Your task to perform on an android device: turn off improve location accuracy Image 0: 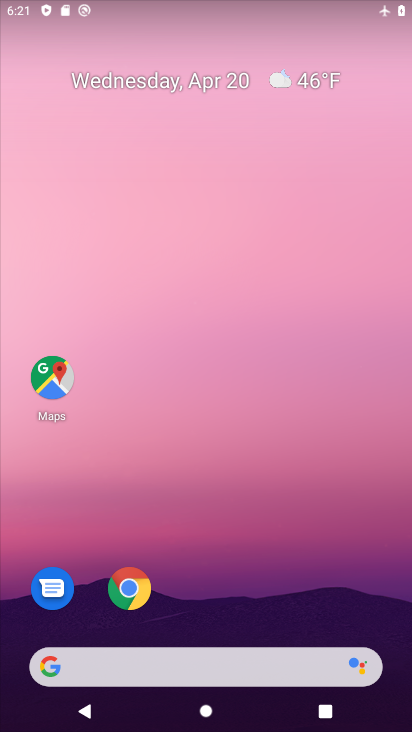
Step 0: drag from (278, 598) to (166, 0)
Your task to perform on an android device: turn off improve location accuracy Image 1: 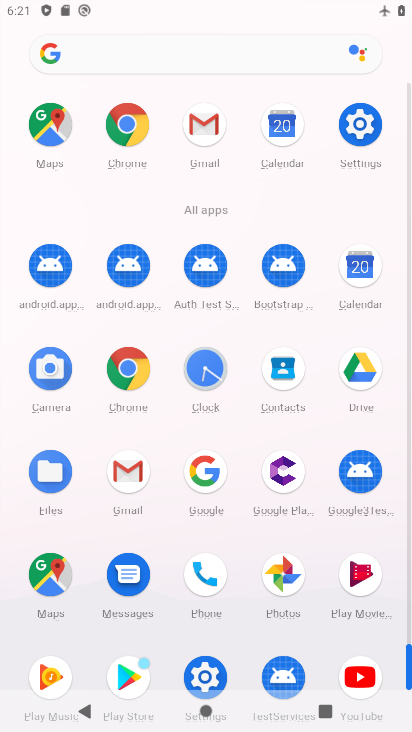
Step 1: click (224, 669)
Your task to perform on an android device: turn off improve location accuracy Image 2: 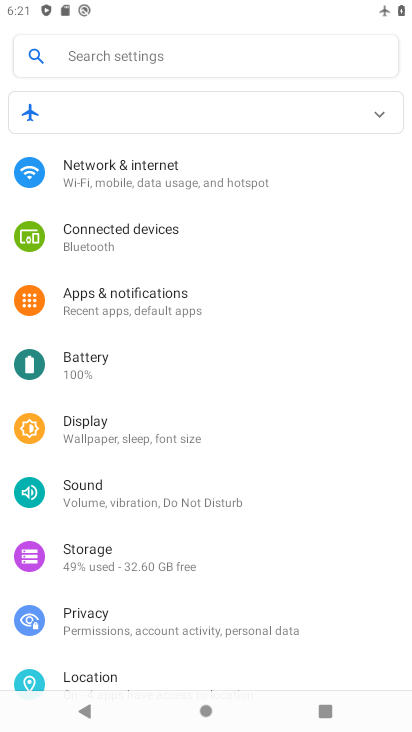
Step 2: drag from (224, 669) to (217, 385)
Your task to perform on an android device: turn off improve location accuracy Image 3: 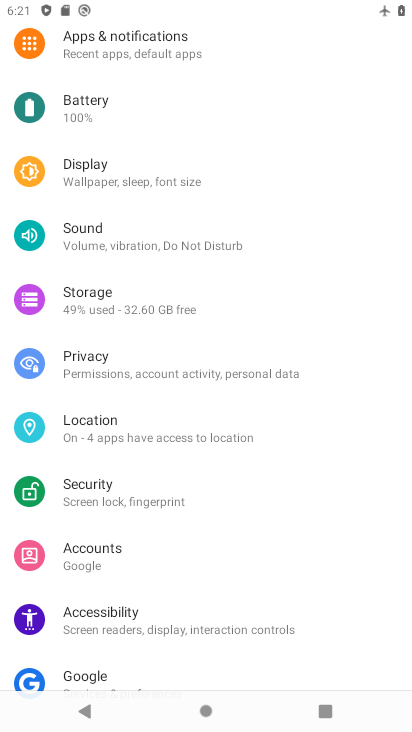
Step 3: click (30, 428)
Your task to perform on an android device: turn off improve location accuracy Image 4: 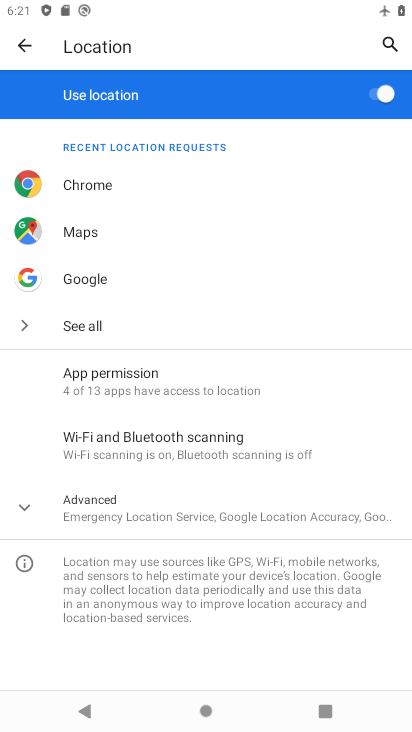
Step 4: drag from (312, 636) to (292, 382)
Your task to perform on an android device: turn off improve location accuracy Image 5: 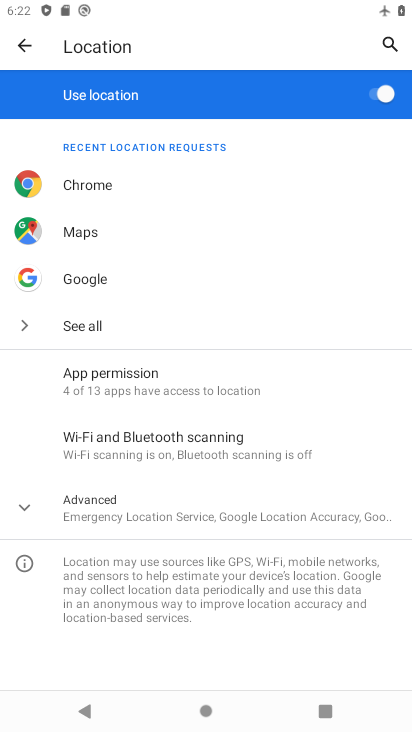
Step 5: click (61, 505)
Your task to perform on an android device: turn off improve location accuracy Image 6: 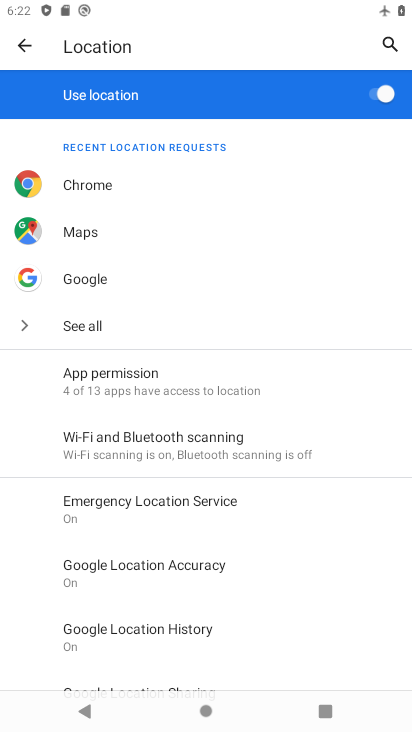
Step 6: click (140, 564)
Your task to perform on an android device: turn off improve location accuracy Image 7: 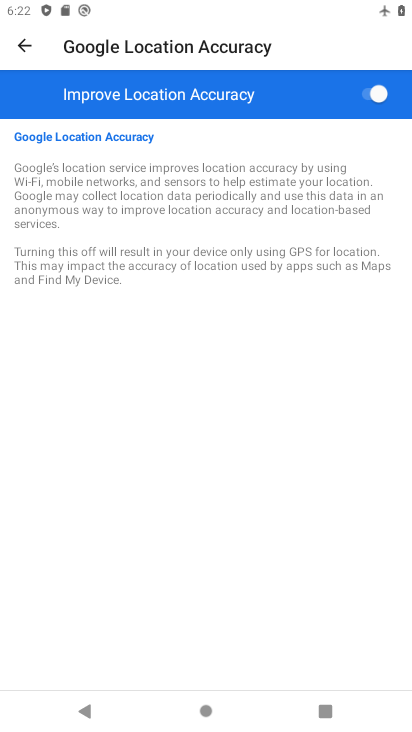
Step 7: click (363, 88)
Your task to perform on an android device: turn off improve location accuracy Image 8: 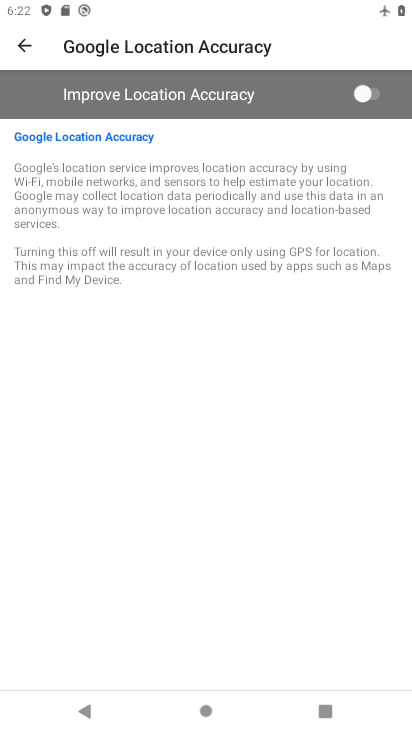
Step 8: task complete